Your task to perform on an android device: turn off translation in the chrome app Image 0: 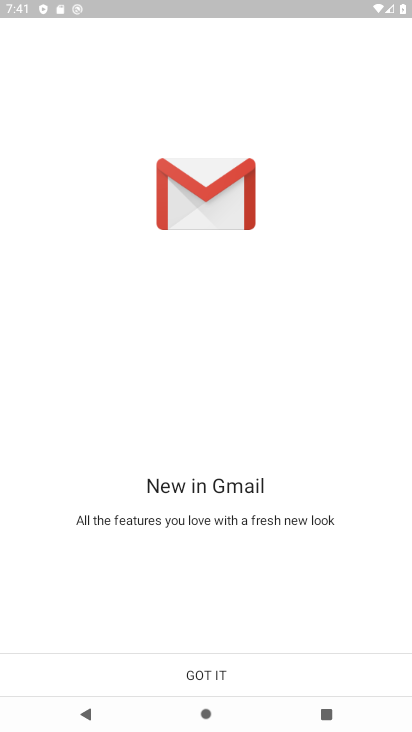
Step 0: click (214, 673)
Your task to perform on an android device: turn off translation in the chrome app Image 1: 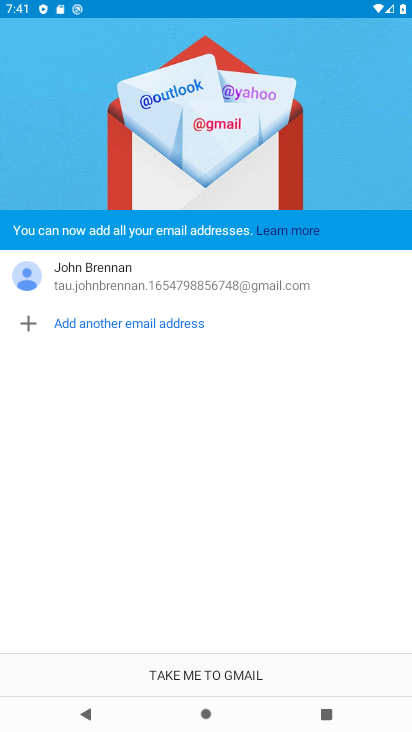
Step 1: press home button
Your task to perform on an android device: turn off translation in the chrome app Image 2: 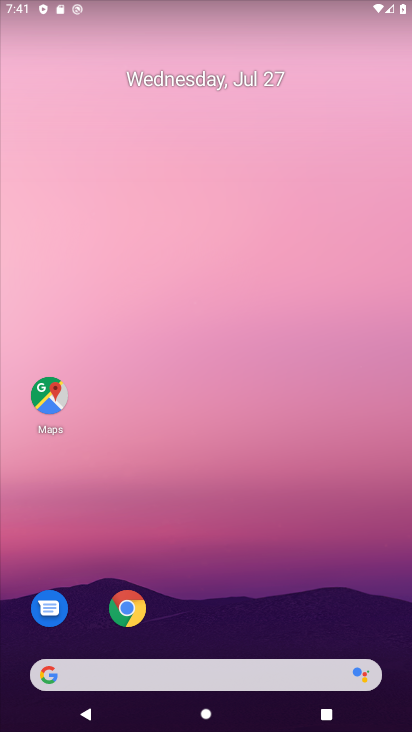
Step 2: drag from (198, 580) to (297, 224)
Your task to perform on an android device: turn off translation in the chrome app Image 3: 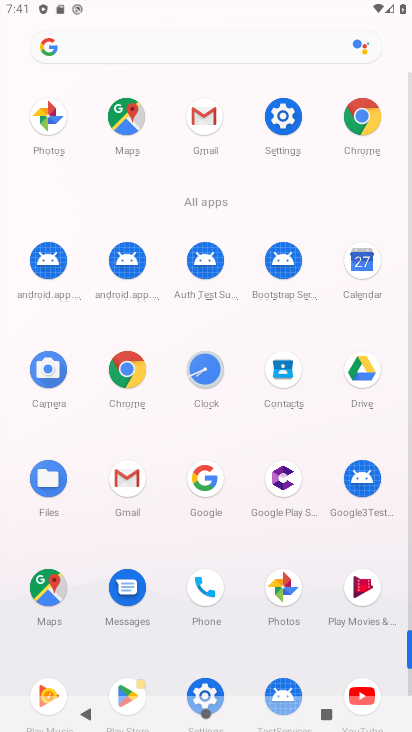
Step 3: click (139, 343)
Your task to perform on an android device: turn off translation in the chrome app Image 4: 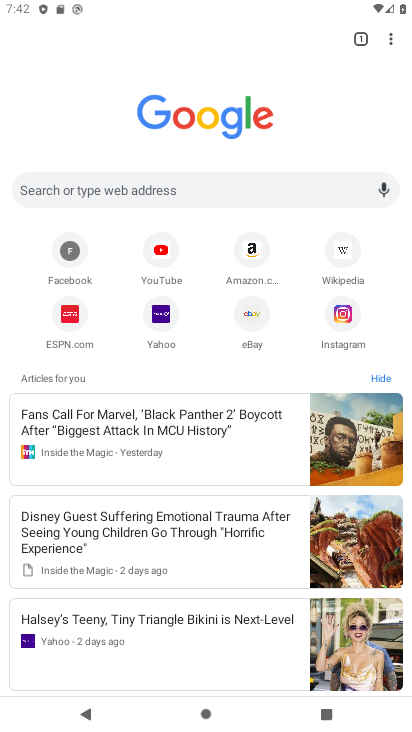
Step 4: click (394, 40)
Your task to perform on an android device: turn off translation in the chrome app Image 5: 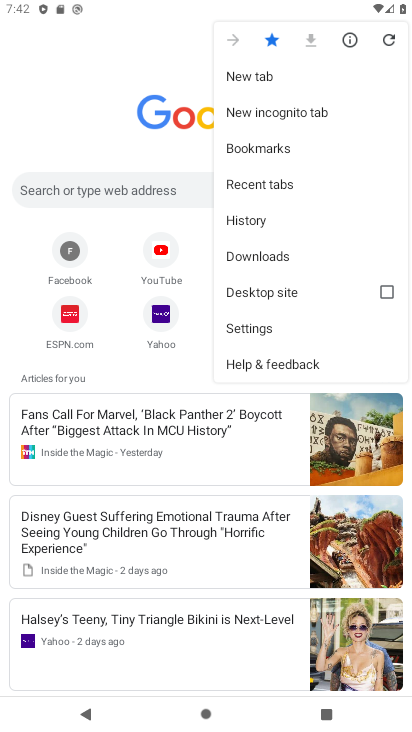
Step 5: click (263, 329)
Your task to perform on an android device: turn off translation in the chrome app Image 6: 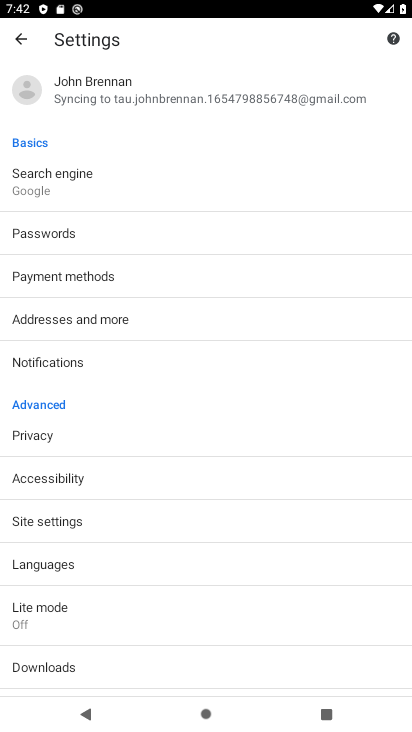
Step 6: task complete